Your task to perform on an android device: Add usb-c to usb-a to the cart on costco, then select checkout. Image 0: 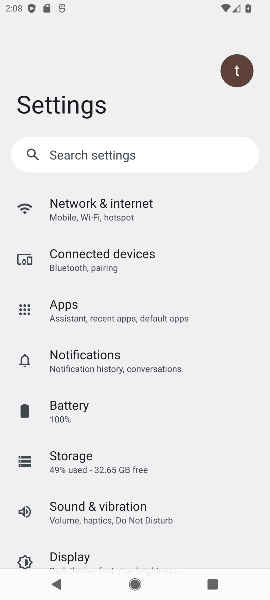
Step 0: press home button
Your task to perform on an android device: Add usb-c to usb-a to the cart on costco, then select checkout. Image 1: 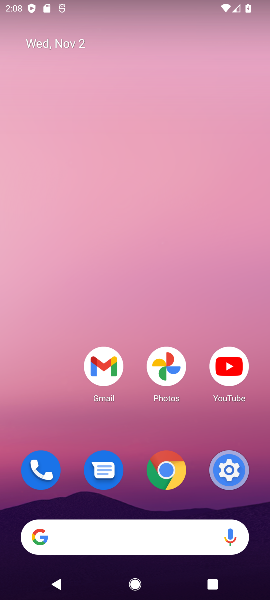
Step 1: drag from (153, 544) to (123, 95)
Your task to perform on an android device: Add usb-c to usb-a to the cart on costco, then select checkout. Image 2: 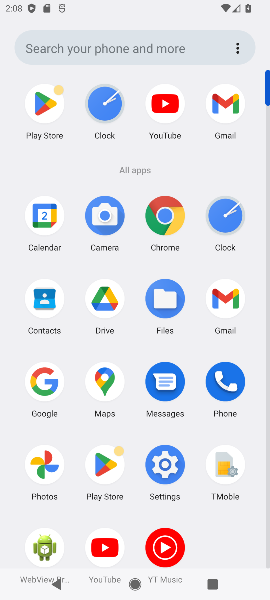
Step 2: click (34, 380)
Your task to perform on an android device: Add usb-c to usb-a to the cart on costco, then select checkout. Image 3: 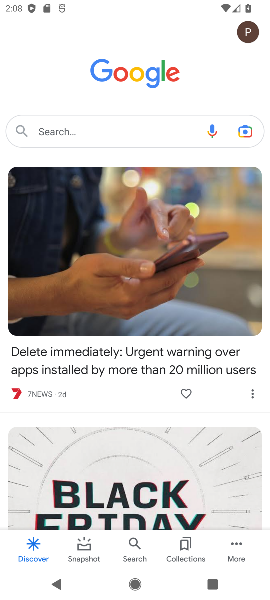
Step 3: click (134, 129)
Your task to perform on an android device: Add usb-c to usb-a to the cart on costco, then select checkout. Image 4: 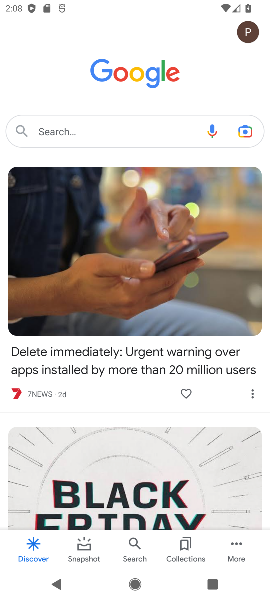
Step 4: type "costco "
Your task to perform on an android device: Add usb-c to usb-a to the cart on costco, then select checkout. Image 5: 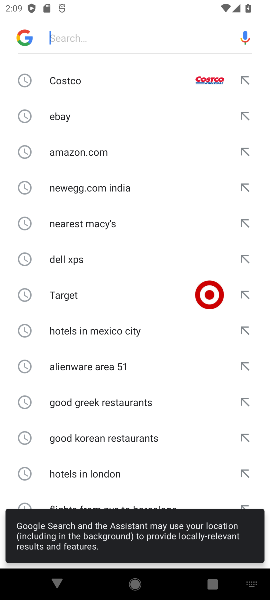
Step 5: click (51, 81)
Your task to perform on an android device: Add usb-c to usb-a to the cart on costco, then select checkout. Image 6: 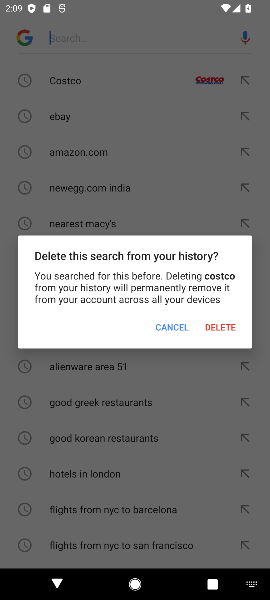
Step 6: click (168, 329)
Your task to perform on an android device: Add usb-c to usb-a to the cart on costco, then select checkout. Image 7: 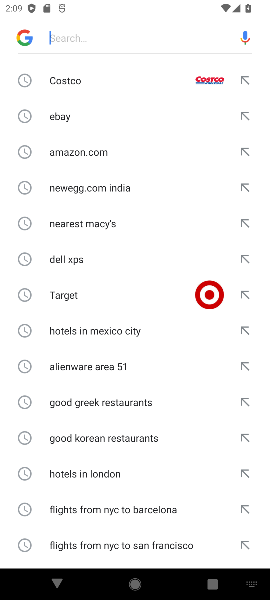
Step 7: click (83, 24)
Your task to perform on an android device: Add usb-c to usb-a to the cart on costco, then select checkout. Image 8: 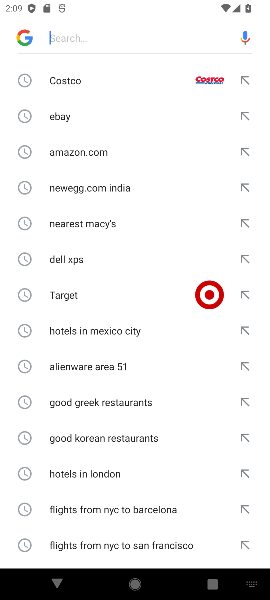
Step 8: type "costco "
Your task to perform on an android device: Add usb-c to usb-a to the cart on costco, then select checkout. Image 9: 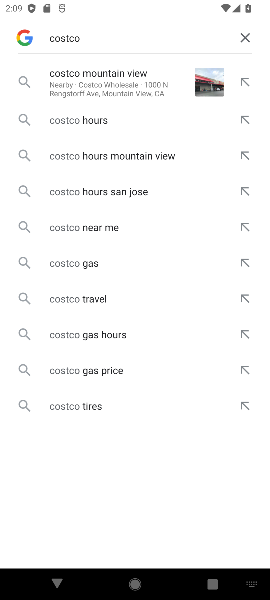
Step 9: click (120, 78)
Your task to perform on an android device: Add usb-c to usb-a to the cart on costco, then select checkout. Image 10: 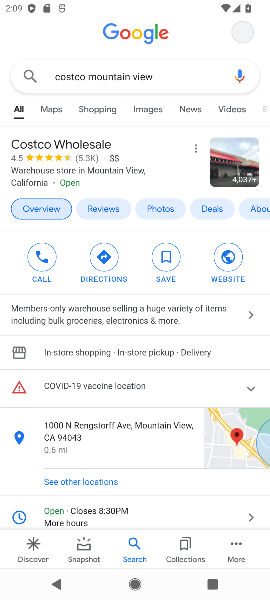
Step 10: drag from (150, 490) to (174, 200)
Your task to perform on an android device: Add usb-c to usb-a to the cart on costco, then select checkout. Image 11: 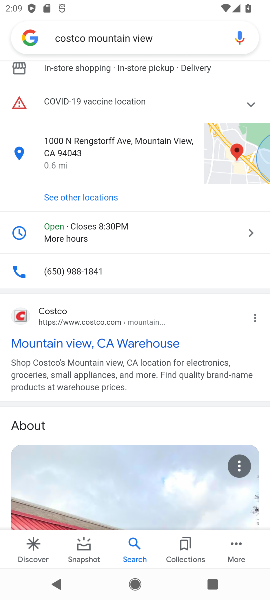
Step 11: click (17, 314)
Your task to perform on an android device: Add usb-c to usb-a to the cart on costco, then select checkout. Image 12: 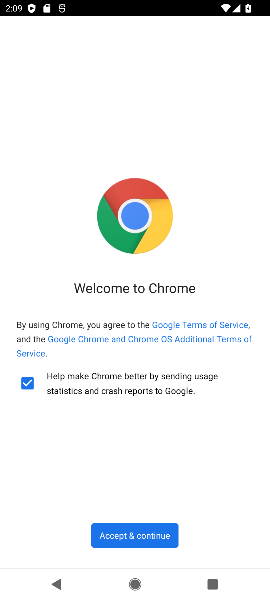
Step 12: click (154, 526)
Your task to perform on an android device: Add usb-c to usb-a to the cart on costco, then select checkout. Image 13: 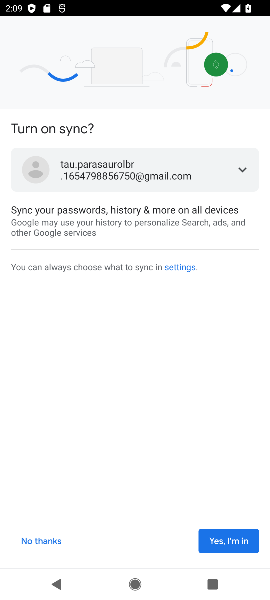
Step 13: click (42, 539)
Your task to perform on an android device: Add usb-c to usb-a to the cart on costco, then select checkout. Image 14: 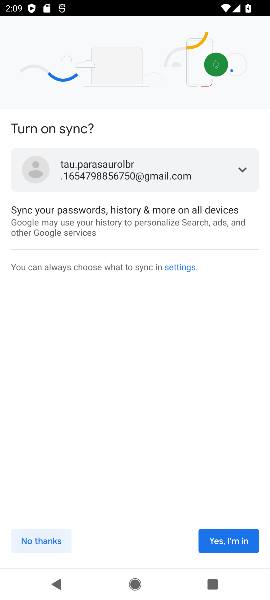
Step 14: click (25, 536)
Your task to perform on an android device: Add usb-c to usb-a to the cart on costco, then select checkout. Image 15: 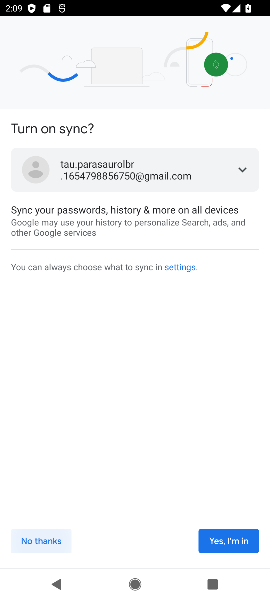
Step 15: click (60, 538)
Your task to perform on an android device: Add usb-c to usb-a to the cart on costco, then select checkout. Image 16: 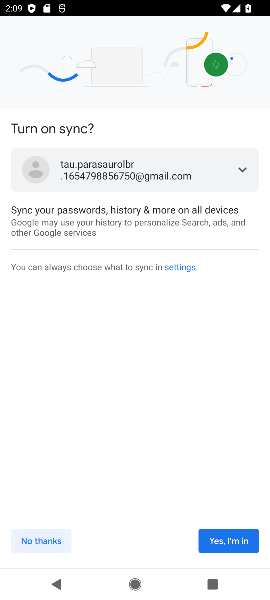
Step 16: click (60, 538)
Your task to perform on an android device: Add usb-c to usb-a to the cart on costco, then select checkout. Image 17: 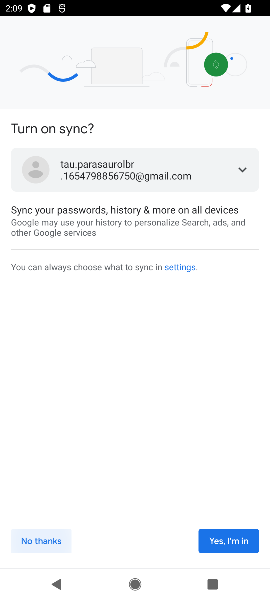
Step 17: click (41, 535)
Your task to perform on an android device: Add usb-c to usb-a to the cart on costco, then select checkout. Image 18: 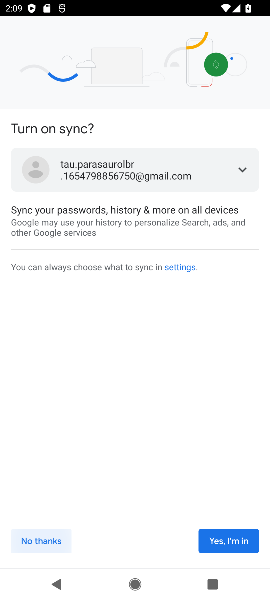
Step 18: click (41, 535)
Your task to perform on an android device: Add usb-c to usb-a to the cart on costco, then select checkout. Image 19: 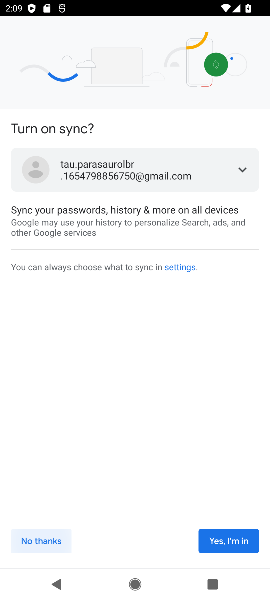
Step 19: click (41, 535)
Your task to perform on an android device: Add usb-c to usb-a to the cart on costco, then select checkout. Image 20: 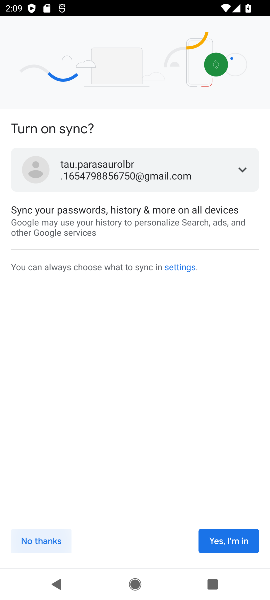
Step 20: click (41, 535)
Your task to perform on an android device: Add usb-c to usb-a to the cart on costco, then select checkout. Image 21: 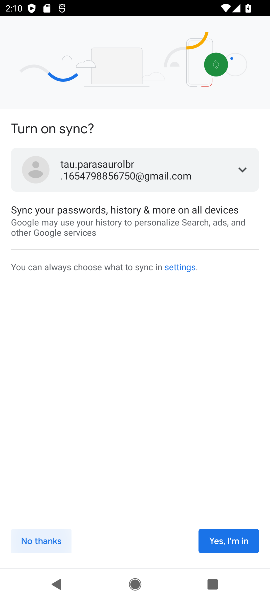
Step 21: click (41, 535)
Your task to perform on an android device: Add usb-c to usb-a to the cart on costco, then select checkout. Image 22: 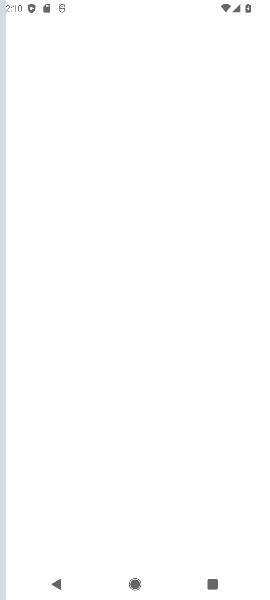
Step 22: click (242, 538)
Your task to perform on an android device: Add usb-c to usb-a to the cart on costco, then select checkout. Image 23: 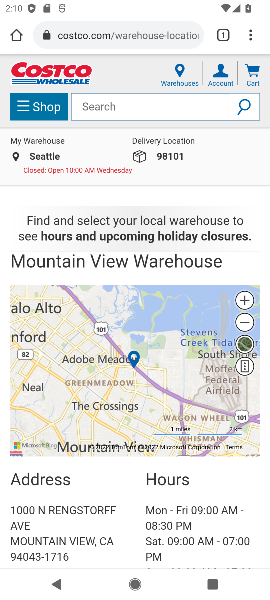
Step 23: click (143, 104)
Your task to perform on an android device: Add usb-c to usb-a to the cart on costco, then select checkout. Image 24: 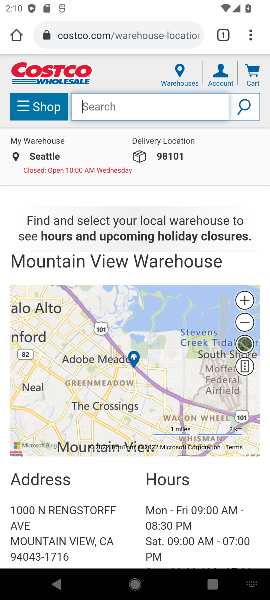
Step 24: type "usb-c to usb-a  "
Your task to perform on an android device: Add usb-c to usb-a to the cart on costco, then select checkout. Image 25: 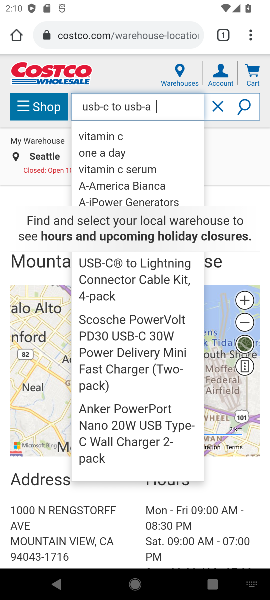
Step 25: click (218, 108)
Your task to perform on an android device: Add usb-c to usb-a to the cart on costco, then select checkout. Image 26: 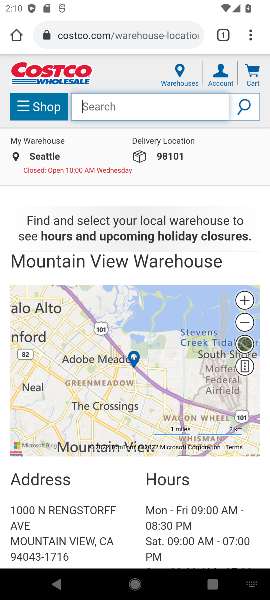
Step 26: click (136, 101)
Your task to perform on an android device: Add usb-c to usb-a to the cart on costco, then select checkout. Image 27: 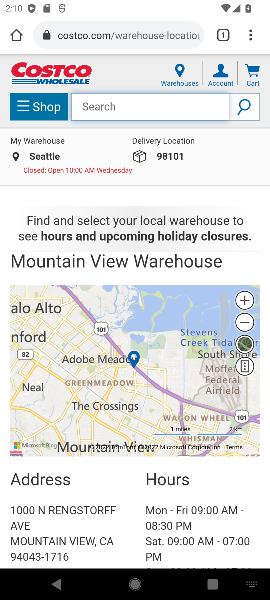
Step 27: type " usb-c  "
Your task to perform on an android device: Add usb-c to usb-a to the cart on costco, then select checkout. Image 28: 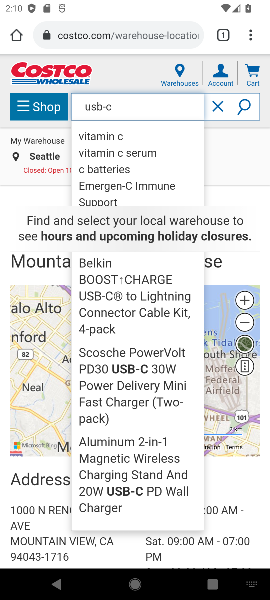
Step 28: click (216, 109)
Your task to perform on an android device: Add usb-c to usb-a to the cart on costco, then select checkout. Image 29: 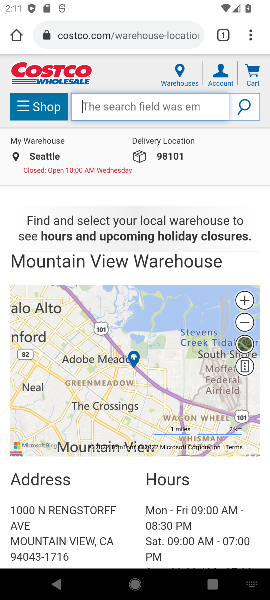
Step 29: click (137, 103)
Your task to perform on an android device: Add usb-c to usb-a to the cart on costco, then select checkout. Image 30: 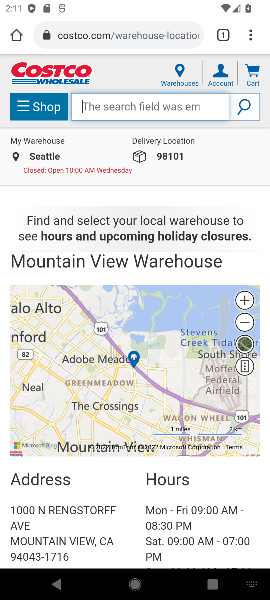
Step 30: type "usb "
Your task to perform on an android device: Add usb-c to usb-a to the cart on costco, then select checkout. Image 31: 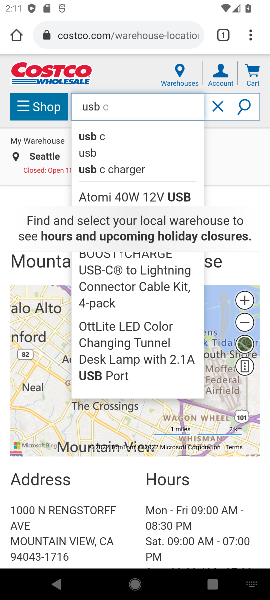
Step 31: click (101, 129)
Your task to perform on an android device: Add usb-c to usb-a to the cart on costco, then select checkout. Image 32: 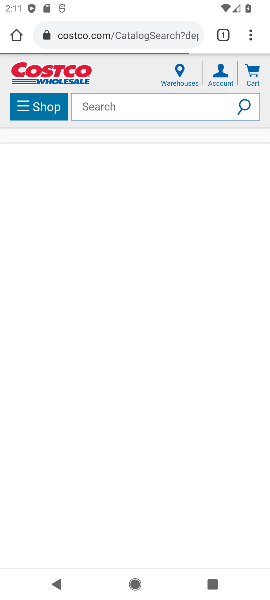
Step 32: click (246, 106)
Your task to perform on an android device: Add usb-c to usb-a to the cart on costco, then select checkout. Image 33: 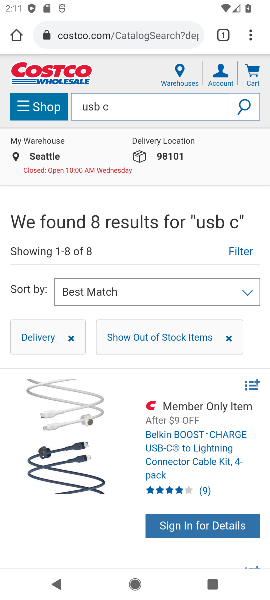
Step 33: drag from (153, 448) to (185, 166)
Your task to perform on an android device: Add usb-c to usb-a to the cart on costco, then select checkout. Image 34: 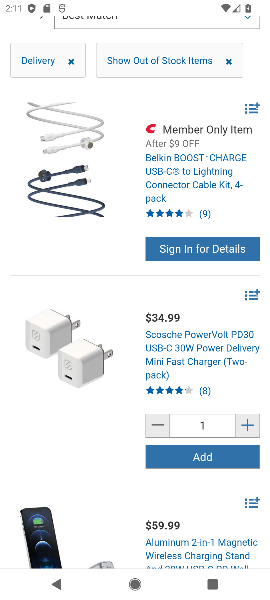
Step 34: click (202, 453)
Your task to perform on an android device: Add usb-c to usb-a to the cart on costco, then select checkout. Image 35: 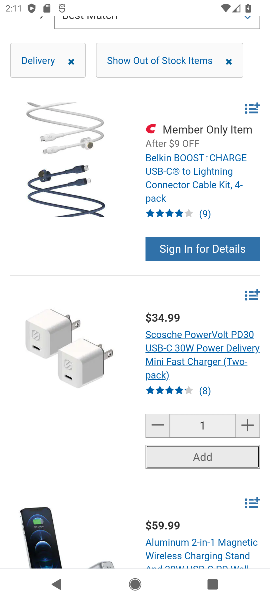
Step 35: task complete